Your task to perform on an android device: Go to eBay Image 0: 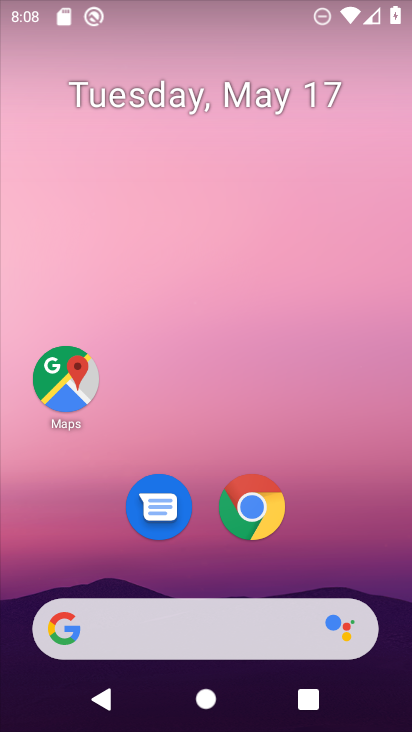
Step 0: click (263, 527)
Your task to perform on an android device: Go to eBay Image 1: 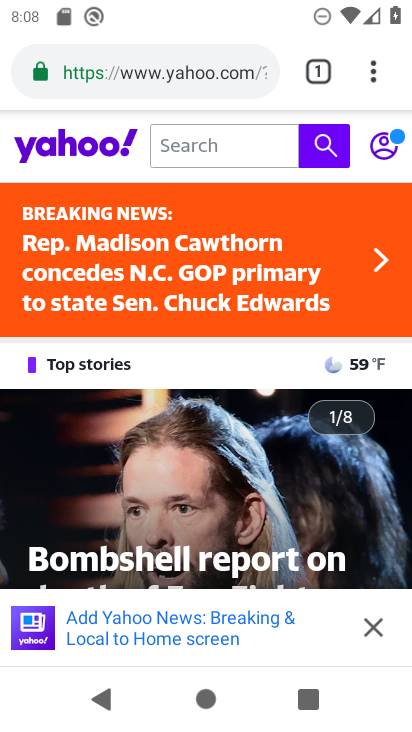
Step 1: click (156, 68)
Your task to perform on an android device: Go to eBay Image 2: 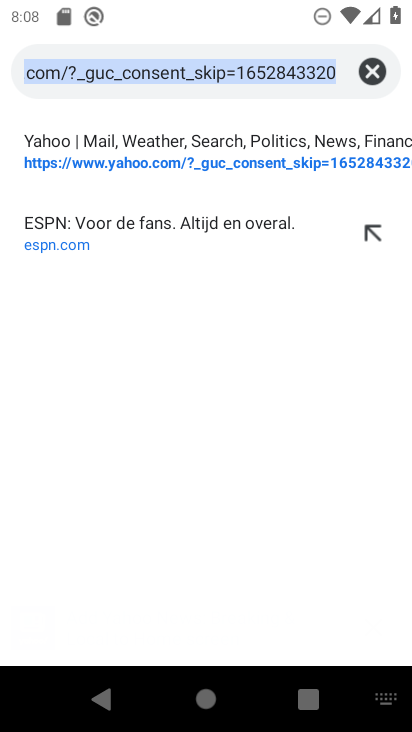
Step 2: click (376, 70)
Your task to perform on an android device: Go to eBay Image 3: 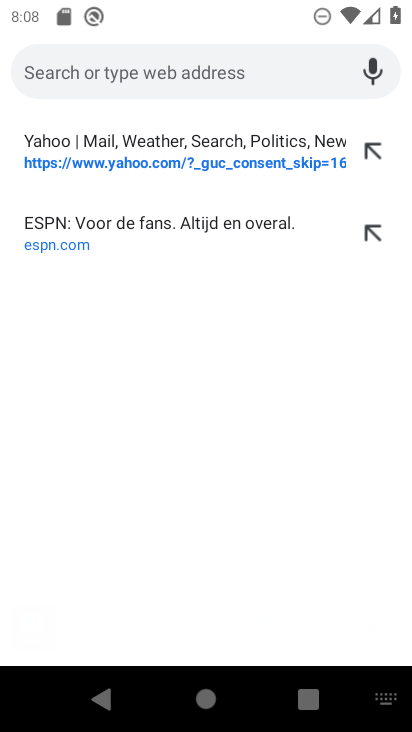
Step 3: type "ebay"
Your task to perform on an android device: Go to eBay Image 4: 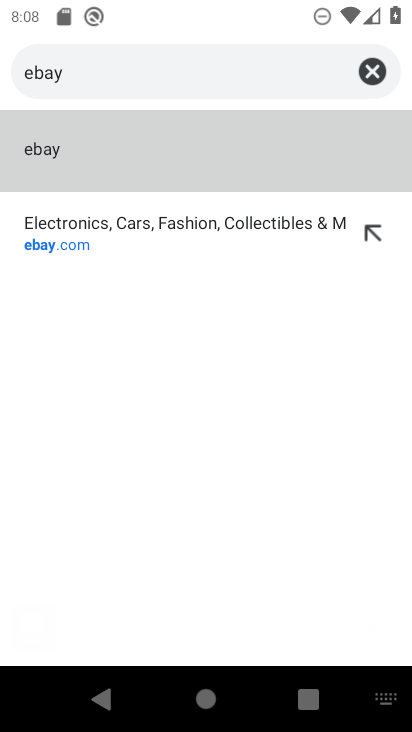
Step 4: click (56, 158)
Your task to perform on an android device: Go to eBay Image 5: 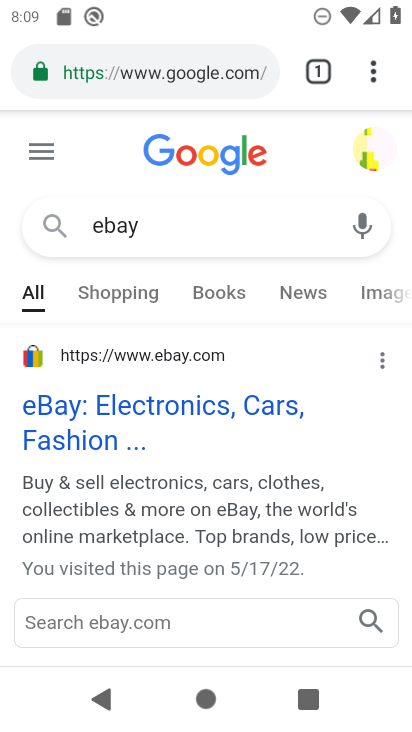
Step 5: click (59, 410)
Your task to perform on an android device: Go to eBay Image 6: 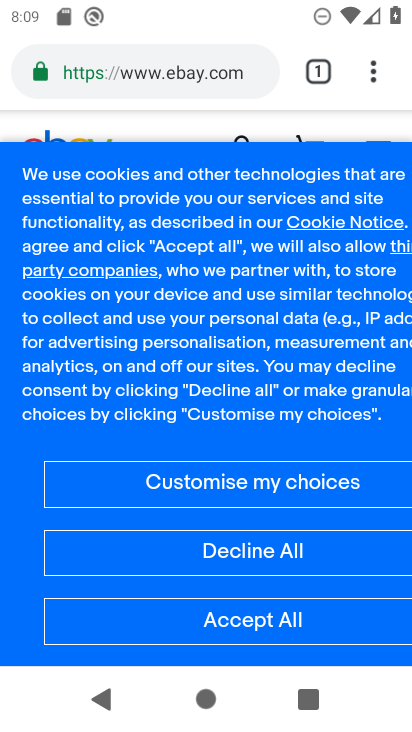
Step 6: task complete